Your task to perform on an android device: Open maps Image 0: 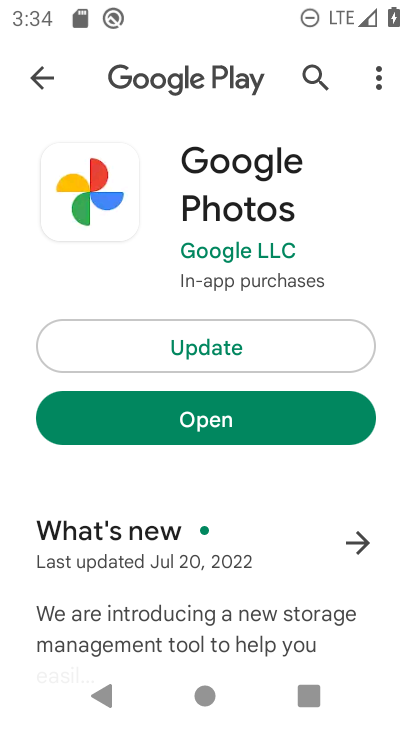
Step 0: press back button
Your task to perform on an android device: Open maps Image 1: 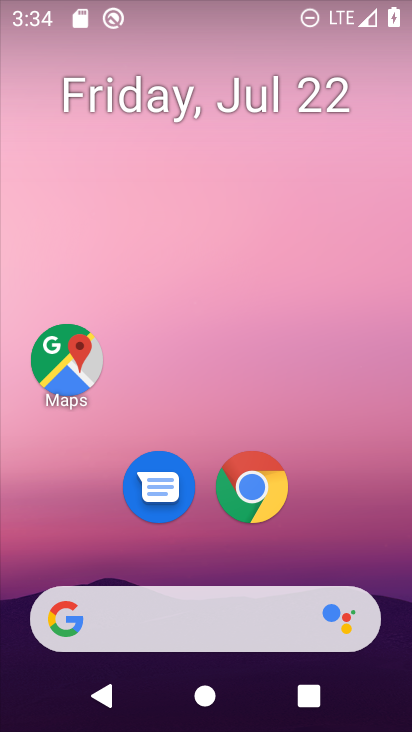
Step 1: click (72, 353)
Your task to perform on an android device: Open maps Image 2: 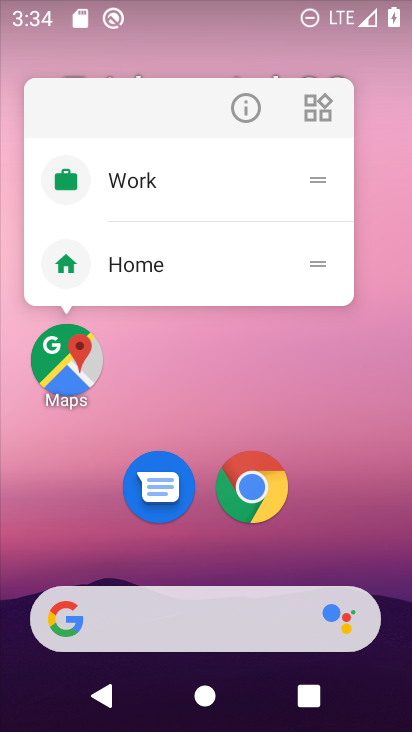
Step 2: click (74, 361)
Your task to perform on an android device: Open maps Image 3: 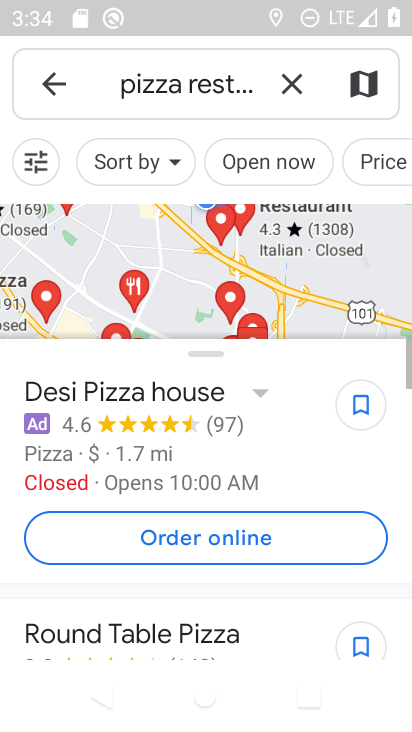
Step 3: task complete